Your task to perform on an android device: Go to CNN.com Image 0: 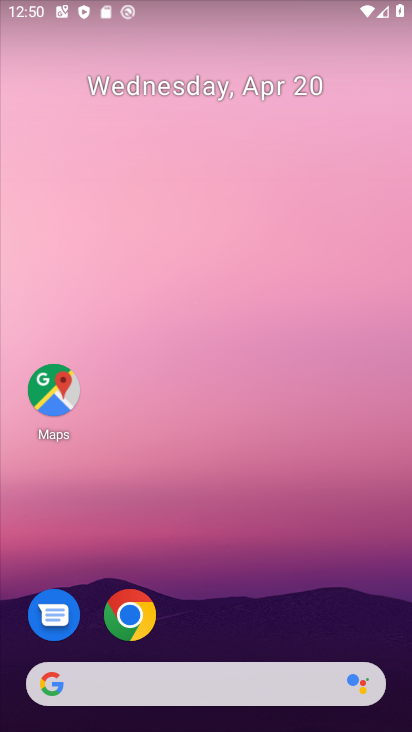
Step 0: click (122, 611)
Your task to perform on an android device: Go to CNN.com Image 1: 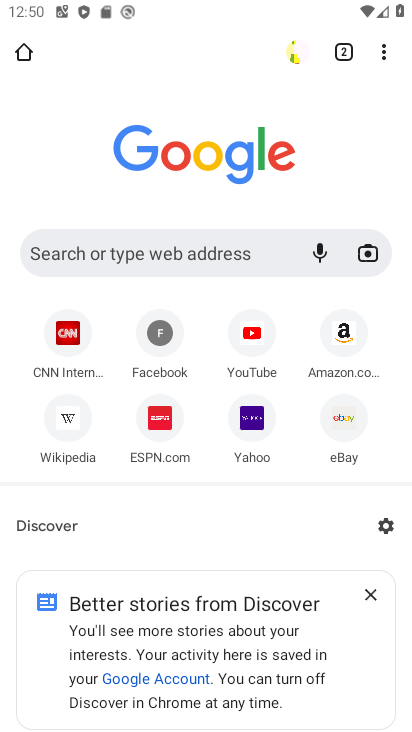
Step 1: click (197, 254)
Your task to perform on an android device: Go to CNN.com Image 2: 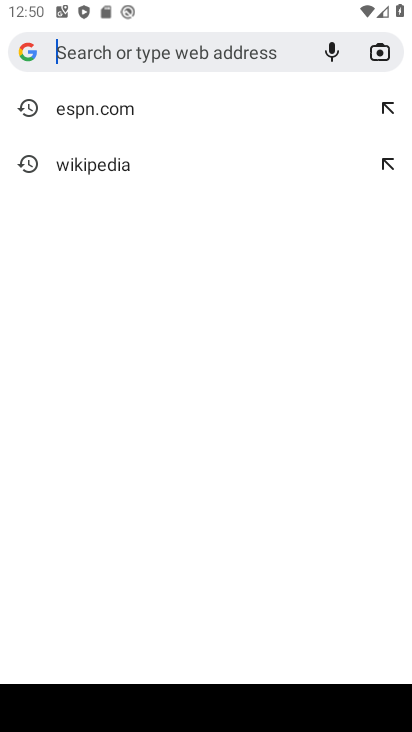
Step 2: type "CNN.com"
Your task to perform on an android device: Go to CNN.com Image 3: 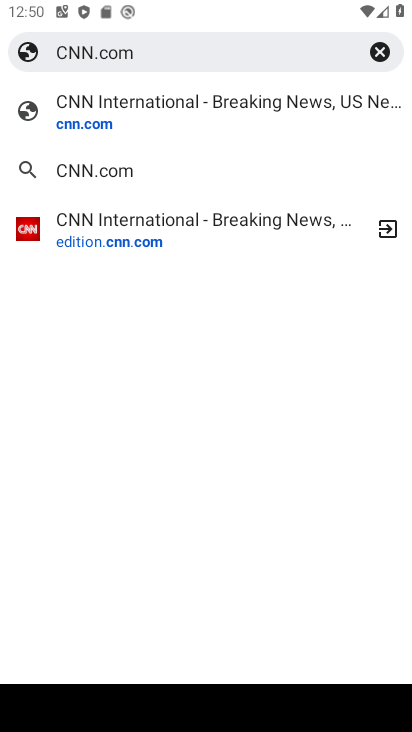
Step 3: click (103, 107)
Your task to perform on an android device: Go to CNN.com Image 4: 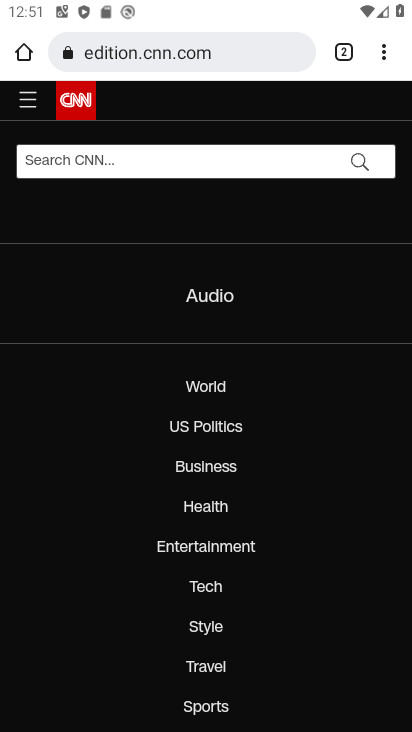
Step 4: task complete